Your task to perform on an android device: move an email to a new category in the gmail app Image 0: 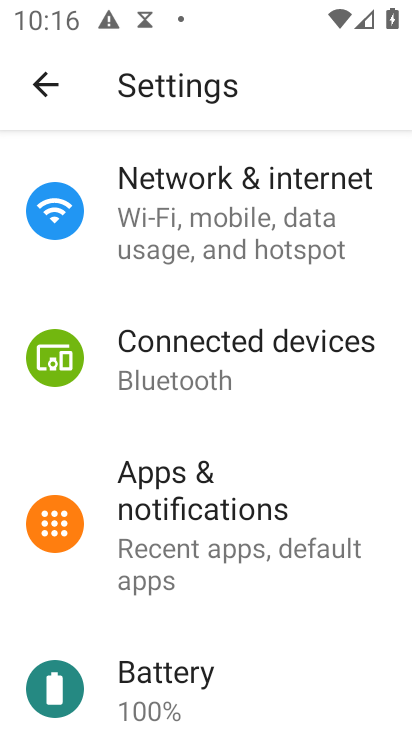
Step 0: press home button
Your task to perform on an android device: move an email to a new category in the gmail app Image 1: 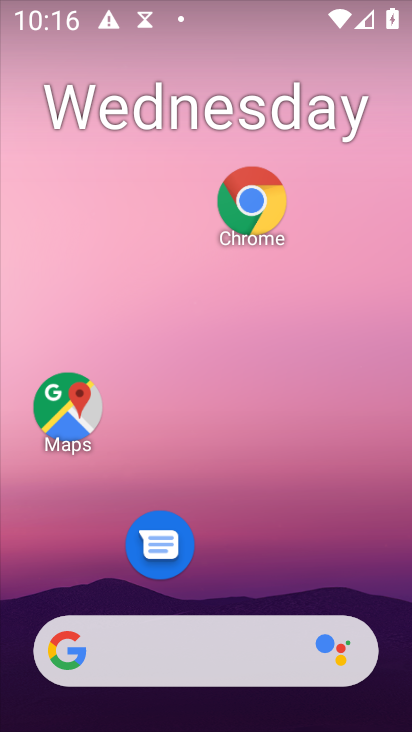
Step 1: drag from (280, 548) to (279, 117)
Your task to perform on an android device: move an email to a new category in the gmail app Image 2: 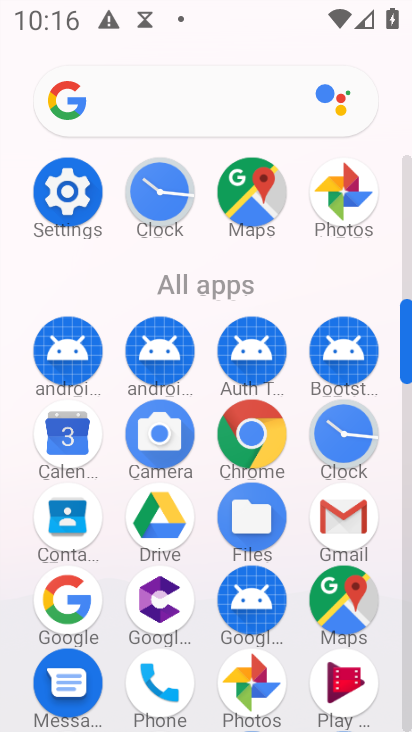
Step 2: click (355, 524)
Your task to perform on an android device: move an email to a new category in the gmail app Image 3: 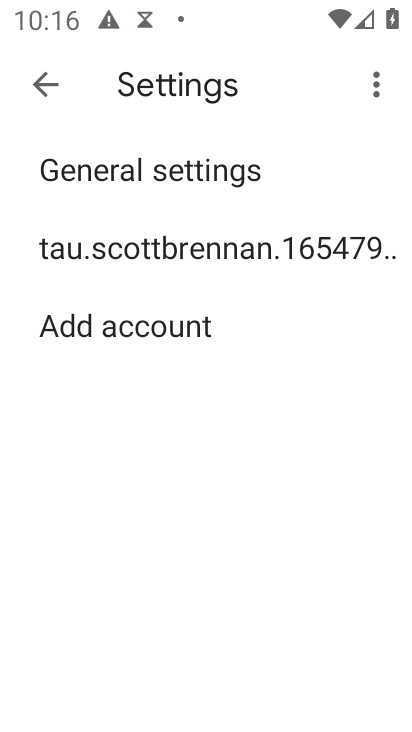
Step 3: click (50, 89)
Your task to perform on an android device: move an email to a new category in the gmail app Image 4: 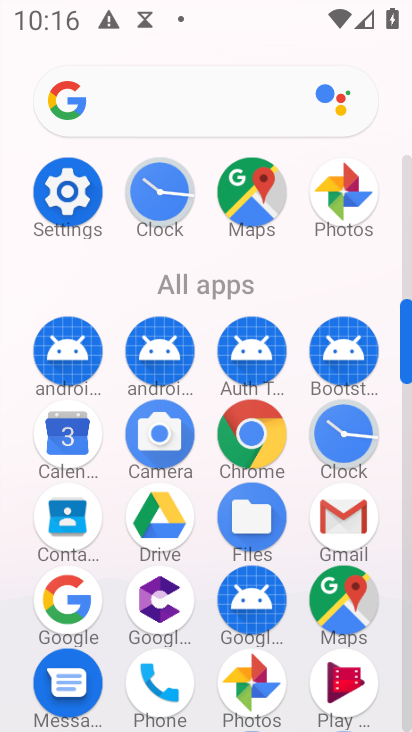
Step 4: click (336, 533)
Your task to perform on an android device: move an email to a new category in the gmail app Image 5: 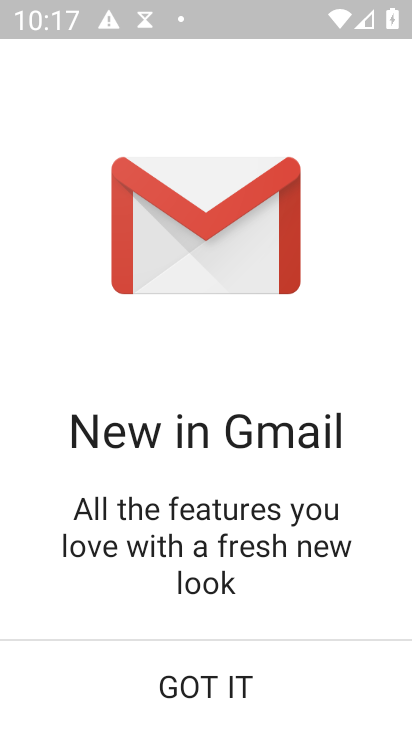
Step 5: click (335, 670)
Your task to perform on an android device: move an email to a new category in the gmail app Image 6: 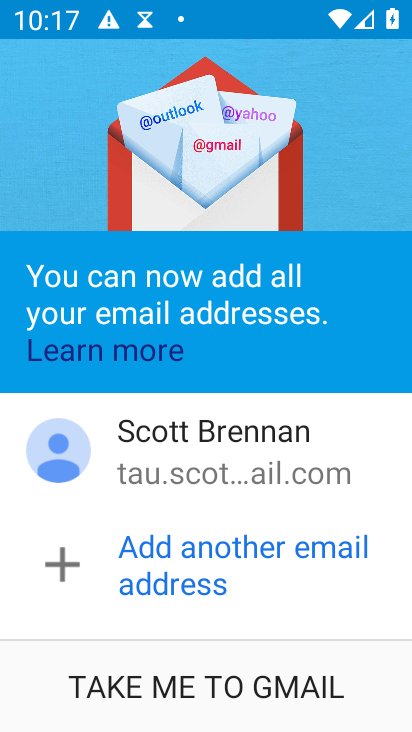
Step 6: click (298, 681)
Your task to perform on an android device: move an email to a new category in the gmail app Image 7: 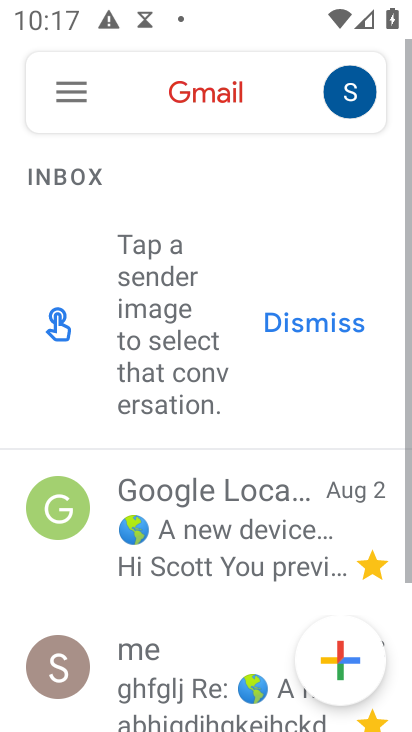
Step 7: click (66, 95)
Your task to perform on an android device: move an email to a new category in the gmail app Image 8: 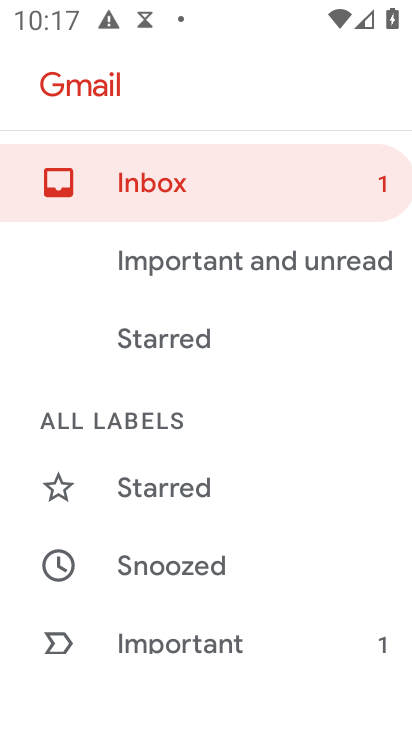
Step 8: drag from (303, 522) to (225, 8)
Your task to perform on an android device: move an email to a new category in the gmail app Image 9: 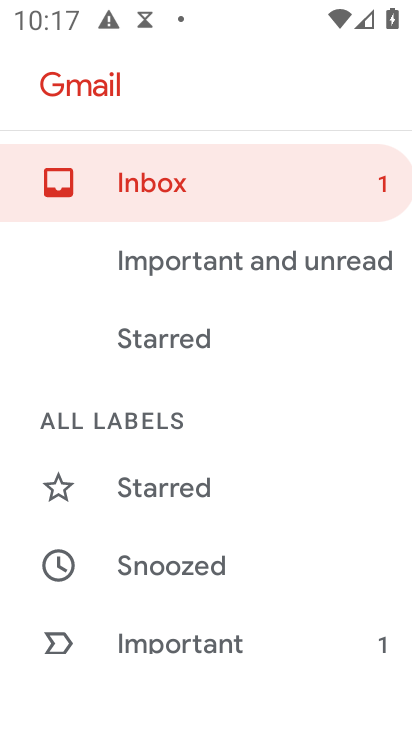
Step 9: drag from (178, 628) to (193, 224)
Your task to perform on an android device: move an email to a new category in the gmail app Image 10: 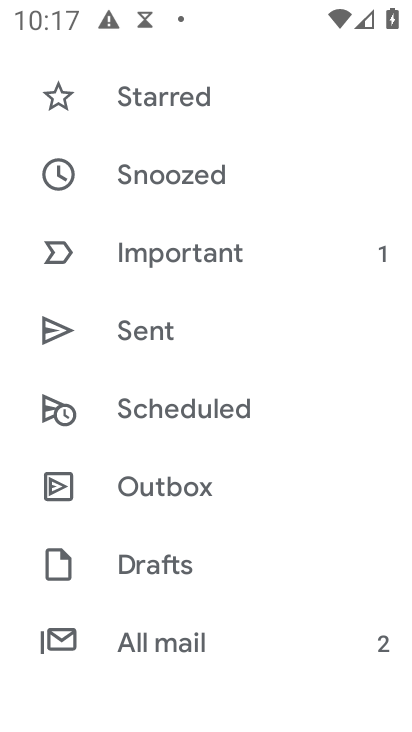
Step 10: click (175, 649)
Your task to perform on an android device: move an email to a new category in the gmail app Image 11: 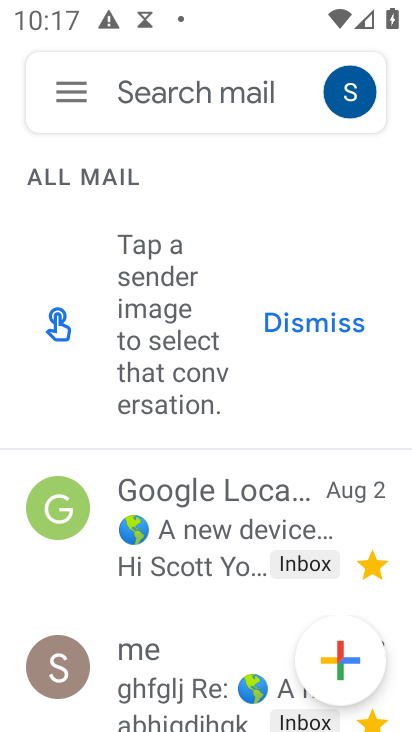
Step 11: click (180, 555)
Your task to perform on an android device: move an email to a new category in the gmail app Image 12: 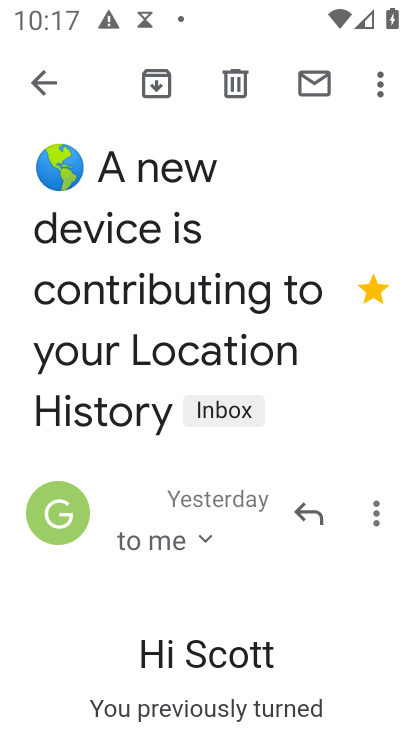
Step 12: click (363, 93)
Your task to perform on an android device: move an email to a new category in the gmail app Image 13: 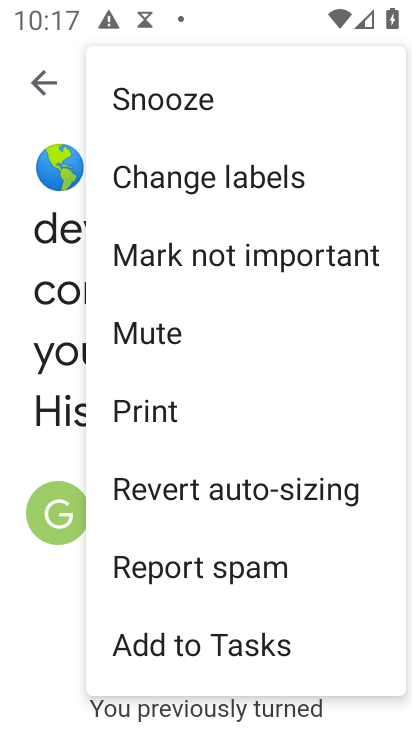
Step 13: click (250, 251)
Your task to perform on an android device: move an email to a new category in the gmail app Image 14: 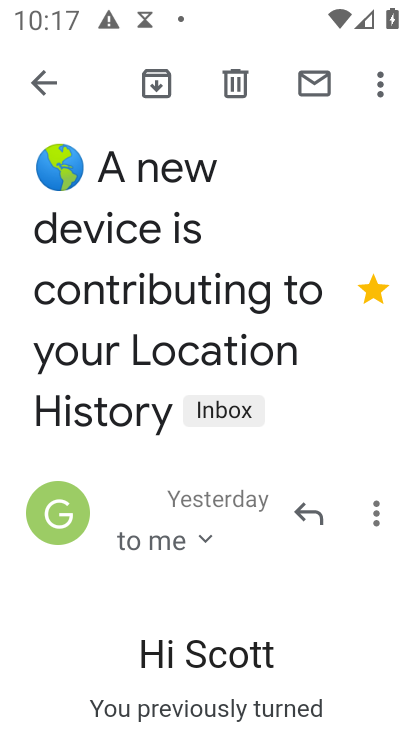
Step 14: task complete